Your task to perform on an android device: Search for "alienware area 51" on amazon, select the first entry, and add it to the cart. Image 0: 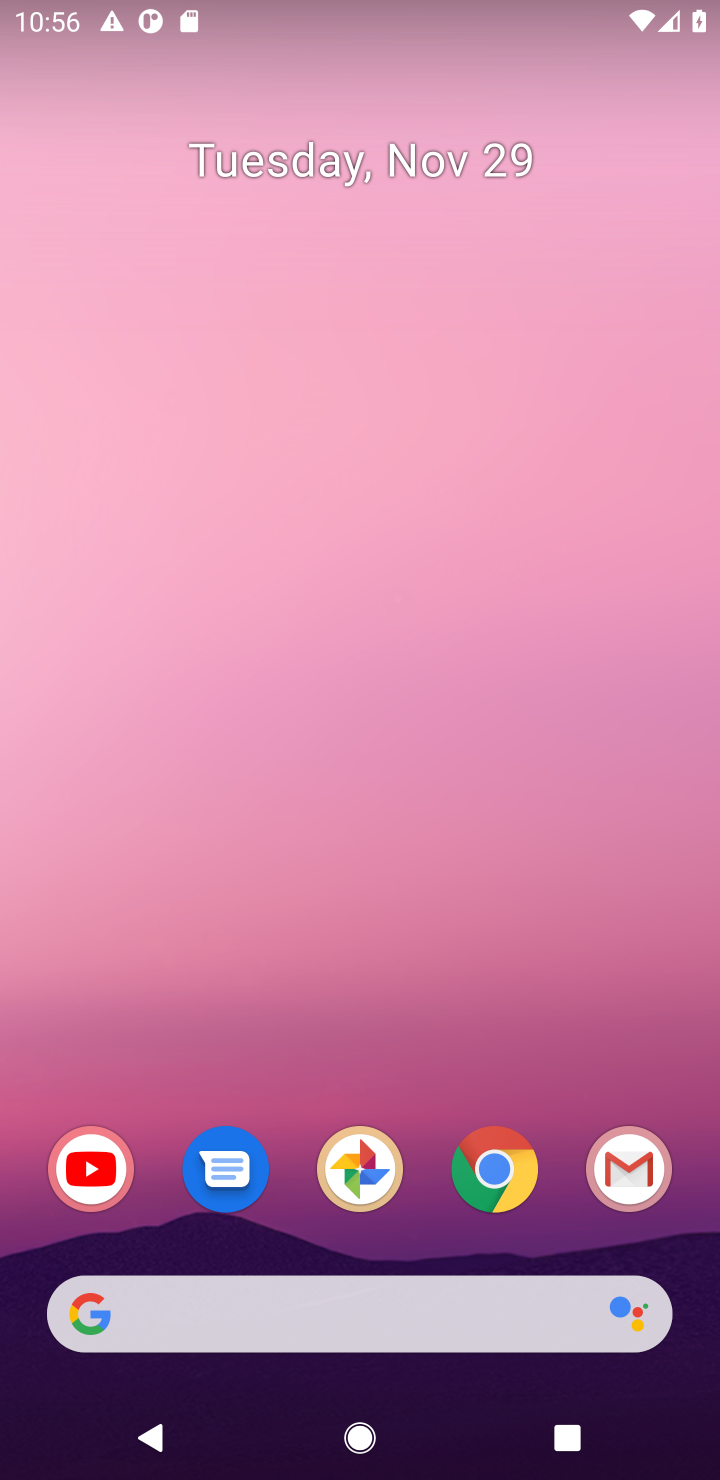
Step 0: click (340, 1338)
Your task to perform on an android device: Search for "alienware area 51" on amazon, select the first entry, and add it to the cart. Image 1: 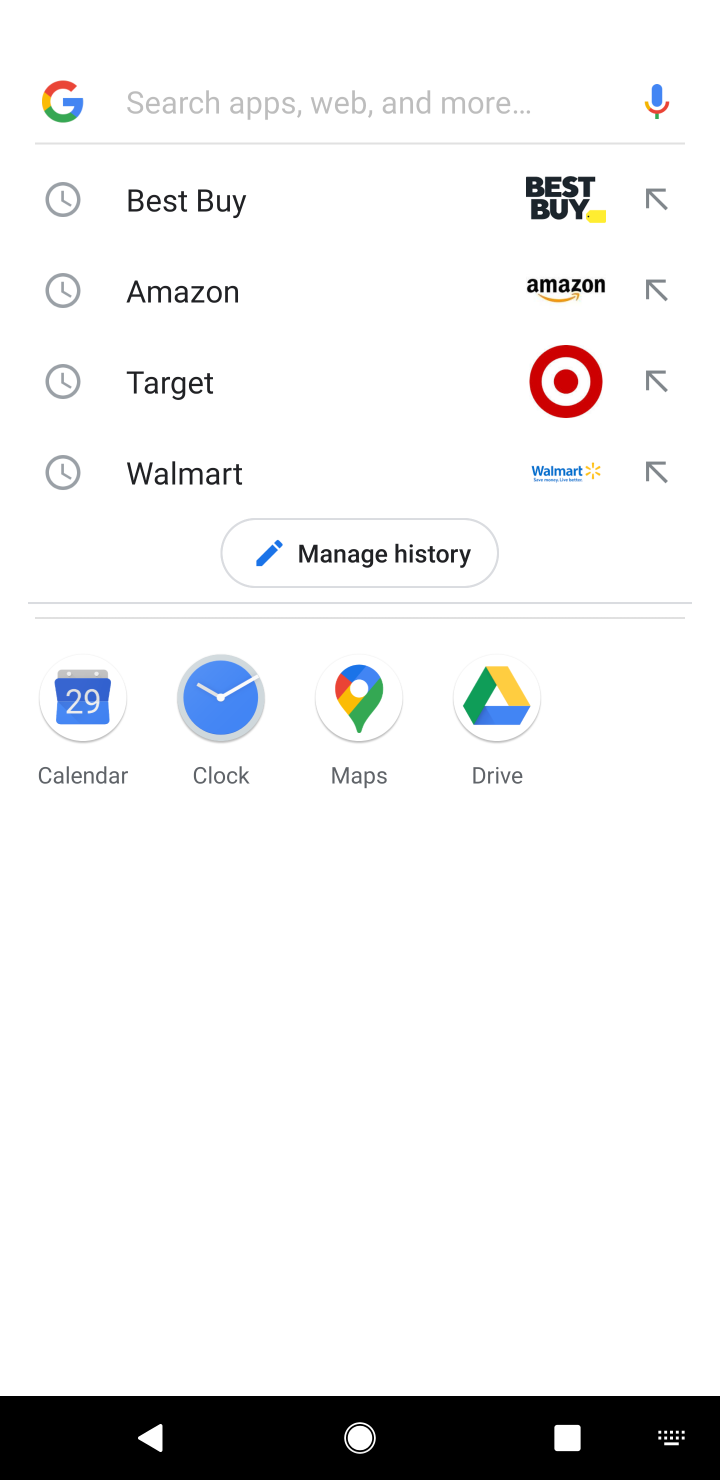
Step 1: click (221, 298)
Your task to perform on an android device: Search for "alienware area 51" on amazon, select the first entry, and add it to the cart. Image 2: 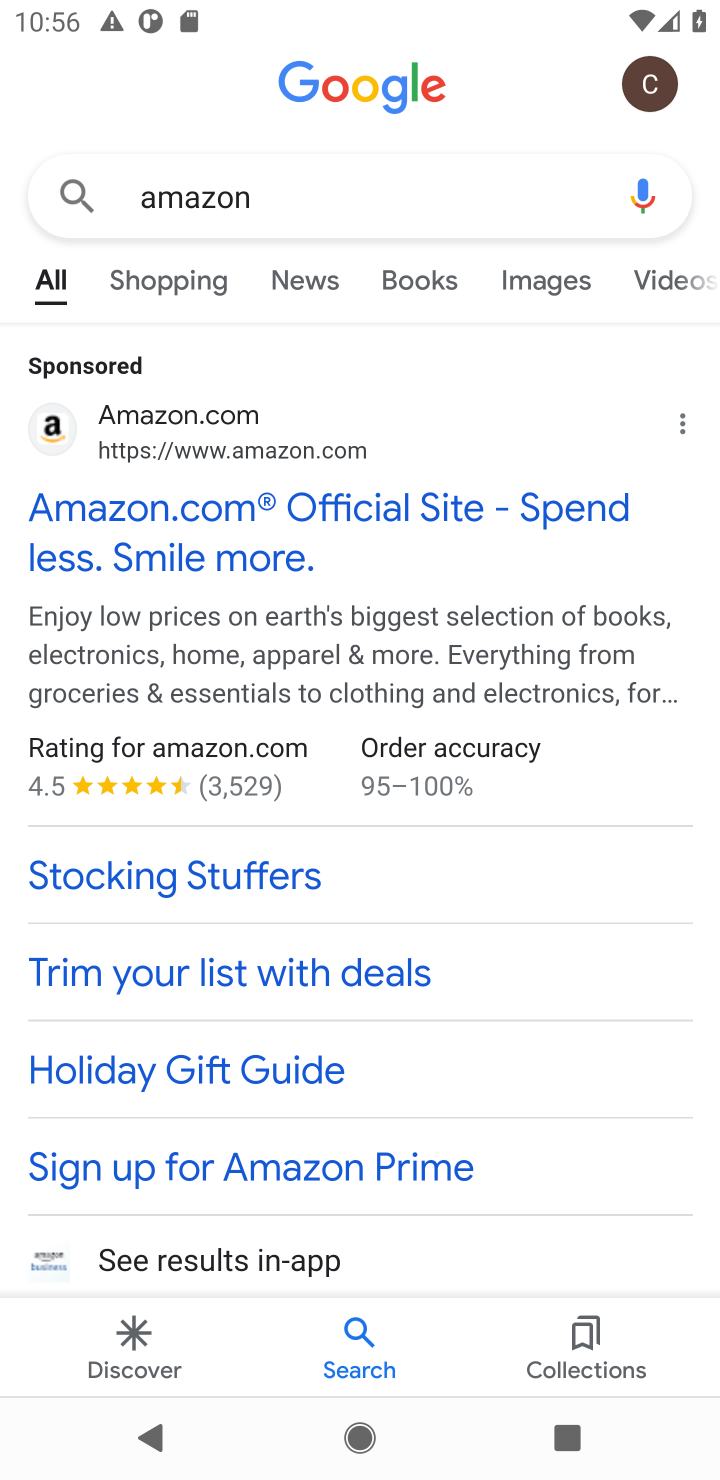
Step 2: click (105, 579)
Your task to perform on an android device: Search for "alienware area 51" on amazon, select the first entry, and add it to the cart. Image 3: 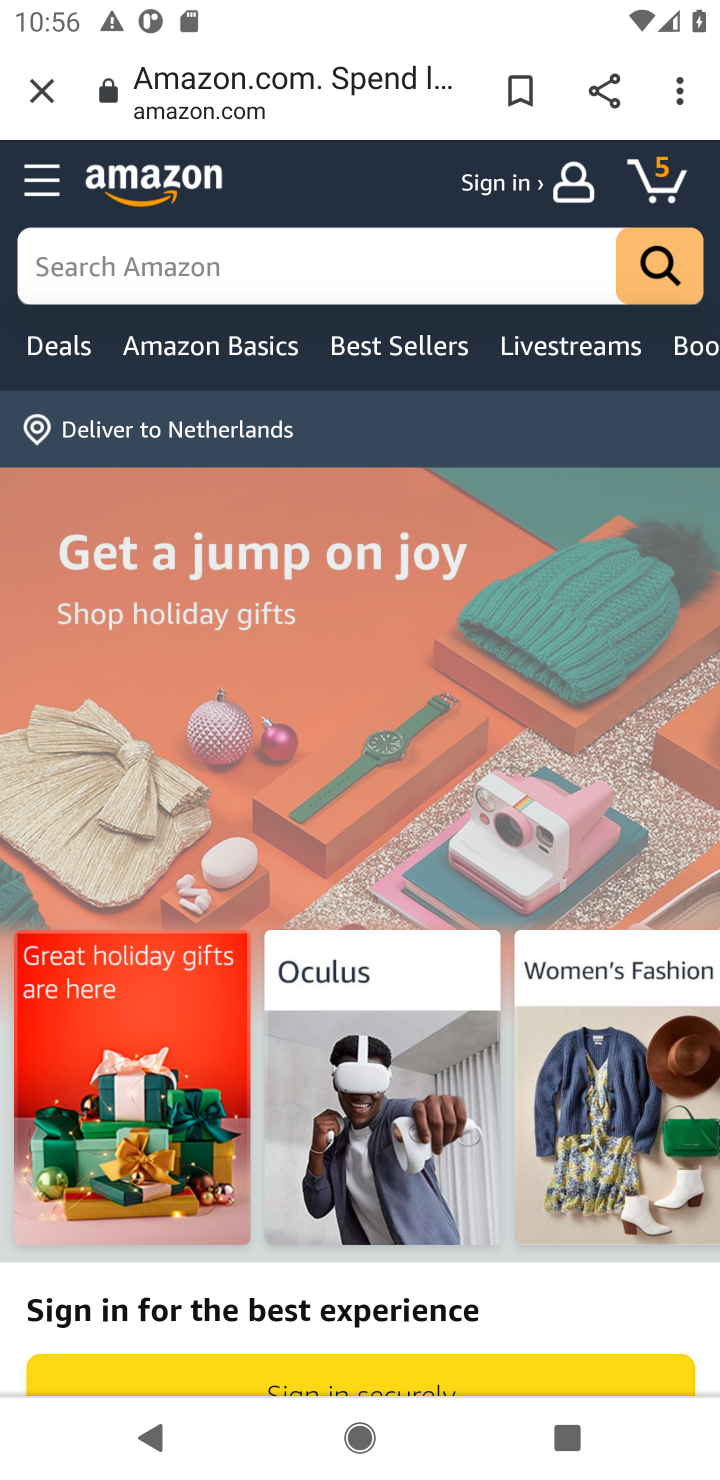
Step 3: click (223, 276)
Your task to perform on an android device: Search for "alienware area 51" on amazon, select the first entry, and add it to the cart. Image 4: 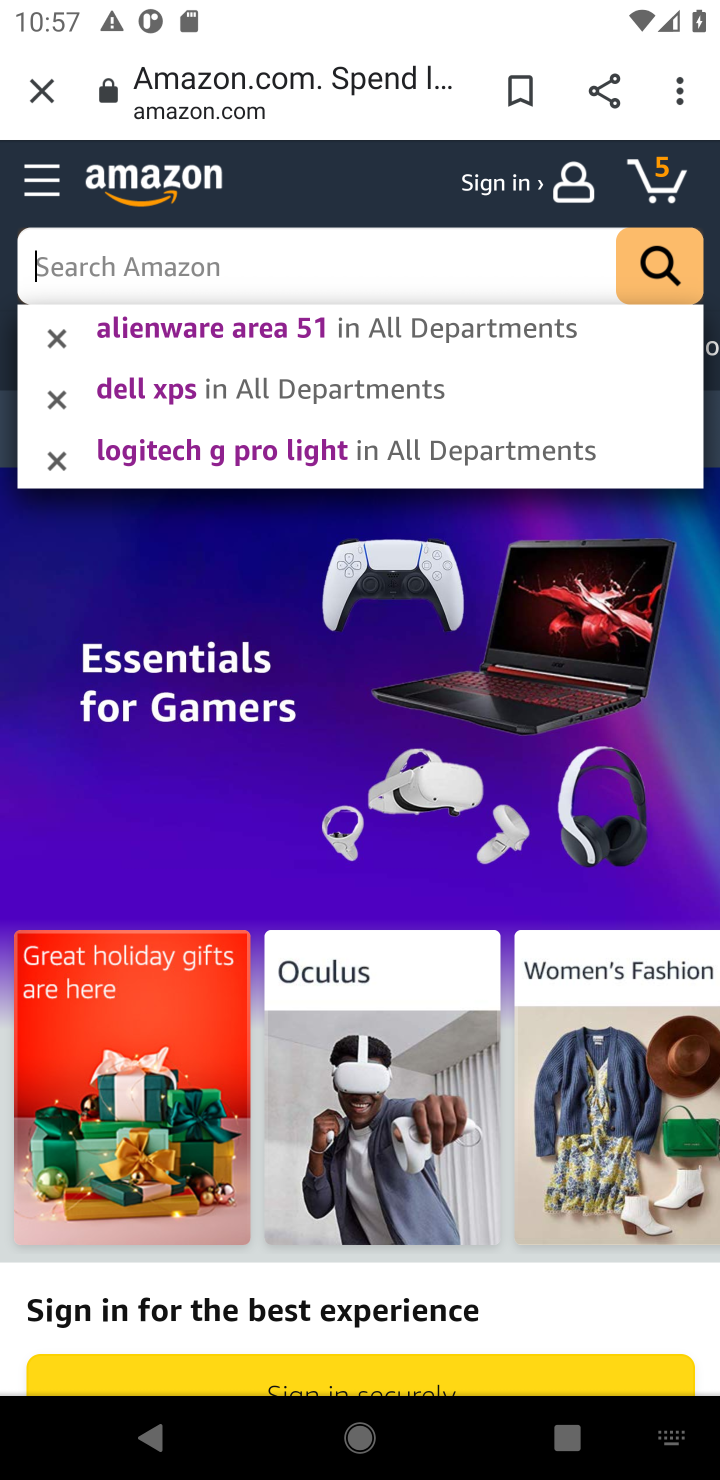
Step 4: type "alienware area 51"
Your task to perform on an android device: Search for "alienware area 51" on amazon, select the first entry, and add it to the cart. Image 5: 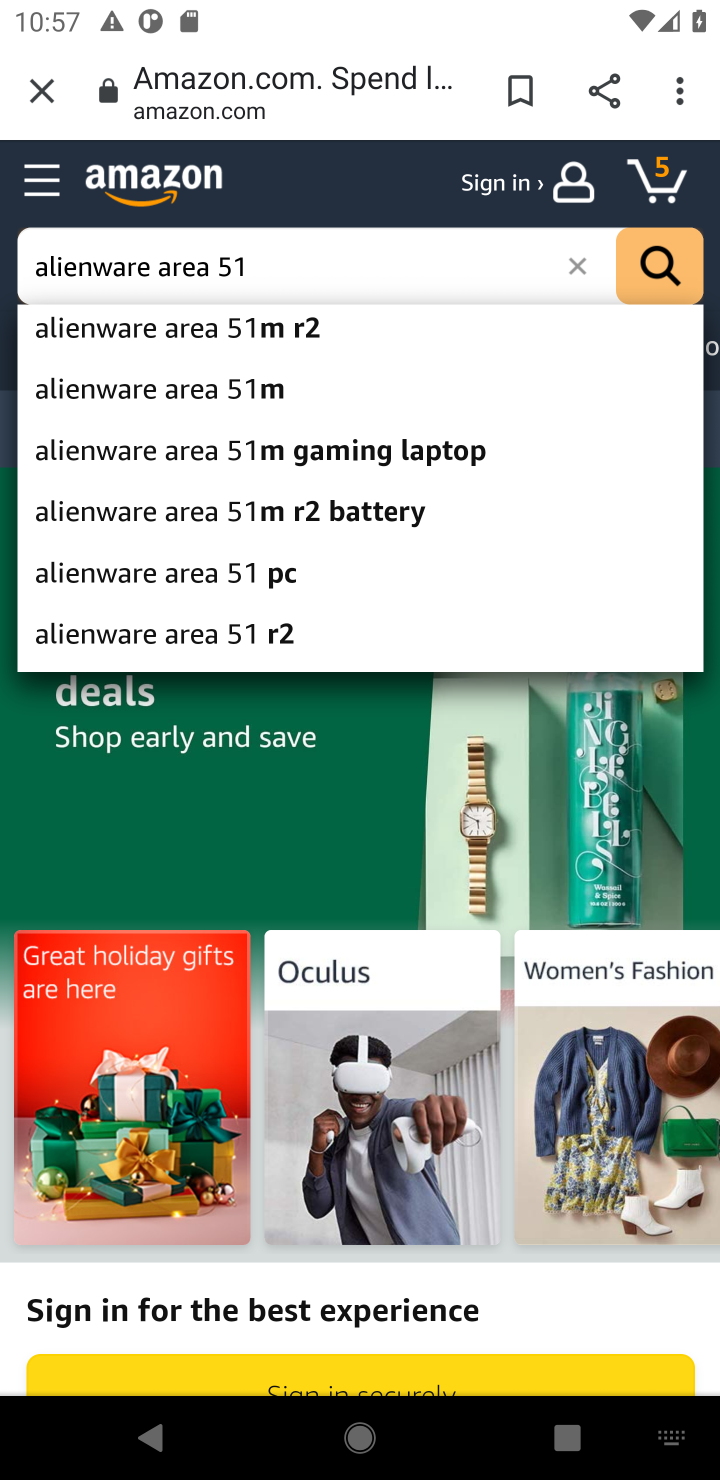
Step 5: click (655, 265)
Your task to perform on an android device: Search for "alienware area 51" on amazon, select the first entry, and add it to the cart. Image 6: 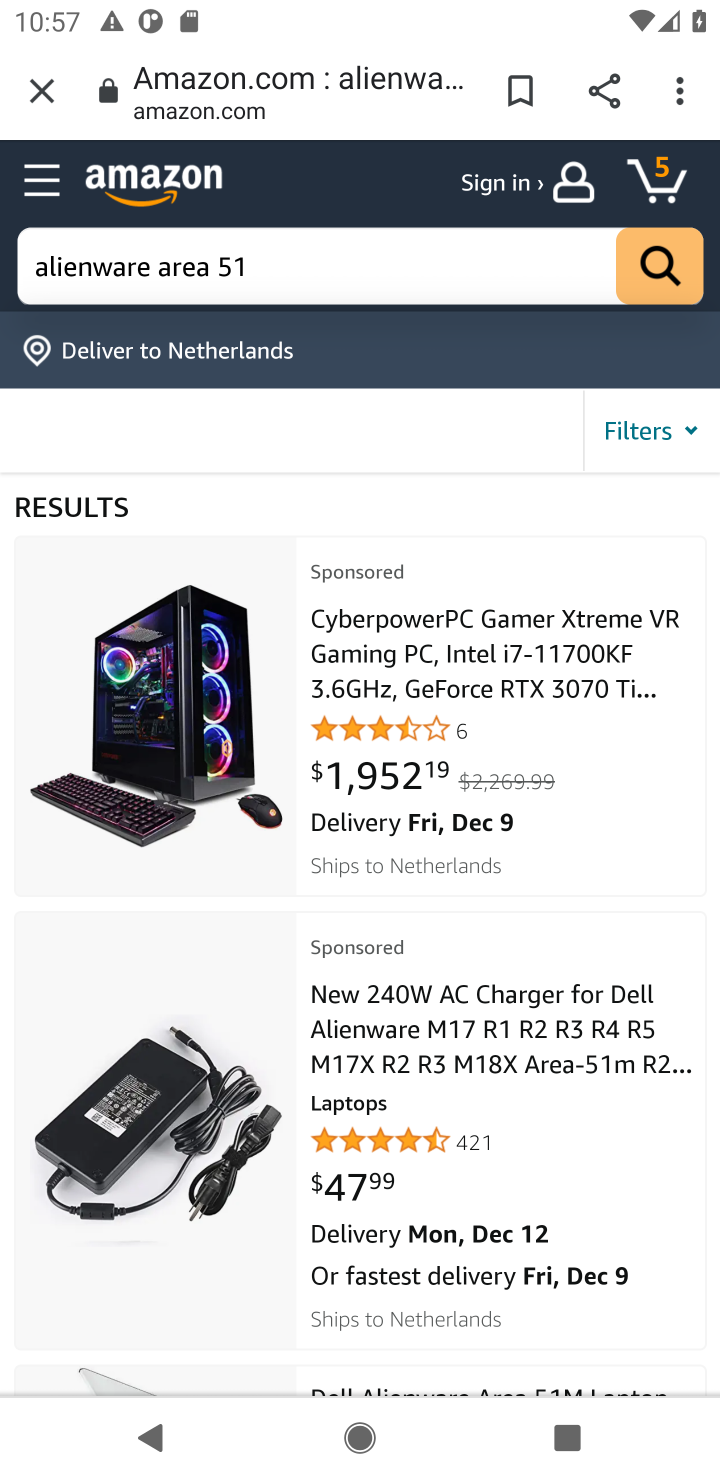
Step 6: click (443, 704)
Your task to perform on an android device: Search for "alienware area 51" on amazon, select the first entry, and add it to the cart. Image 7: 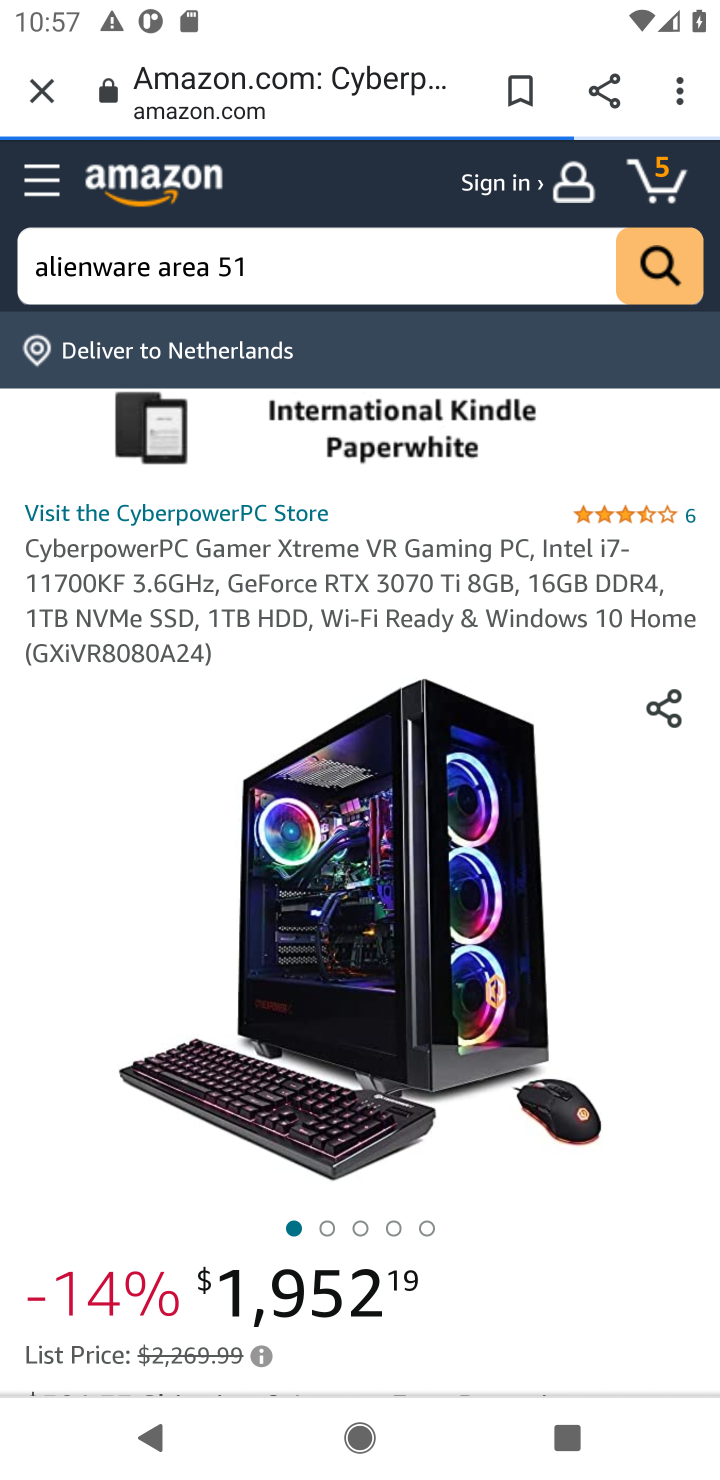
Step 7: drag from (578, 1233) to (534, 538)
Your task to perform on an android device: Search for "alienware area 51" on amazon, select the first entry, and add it to the cart. Image 8: 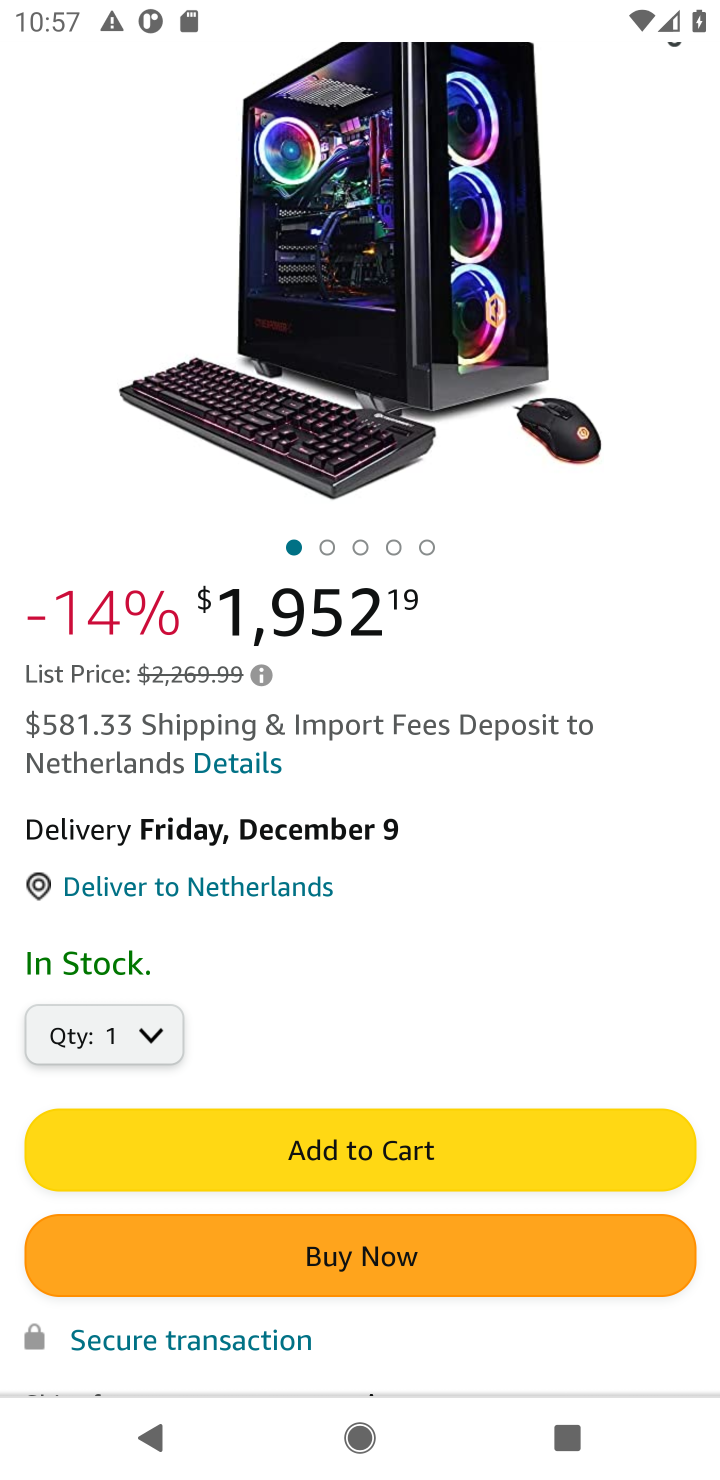
Step 8: click (510, 1156)
Your task to perform on an android device: Search for "alienware area 51" on amazon, select the first entry, and add it to the cart. Image 9: 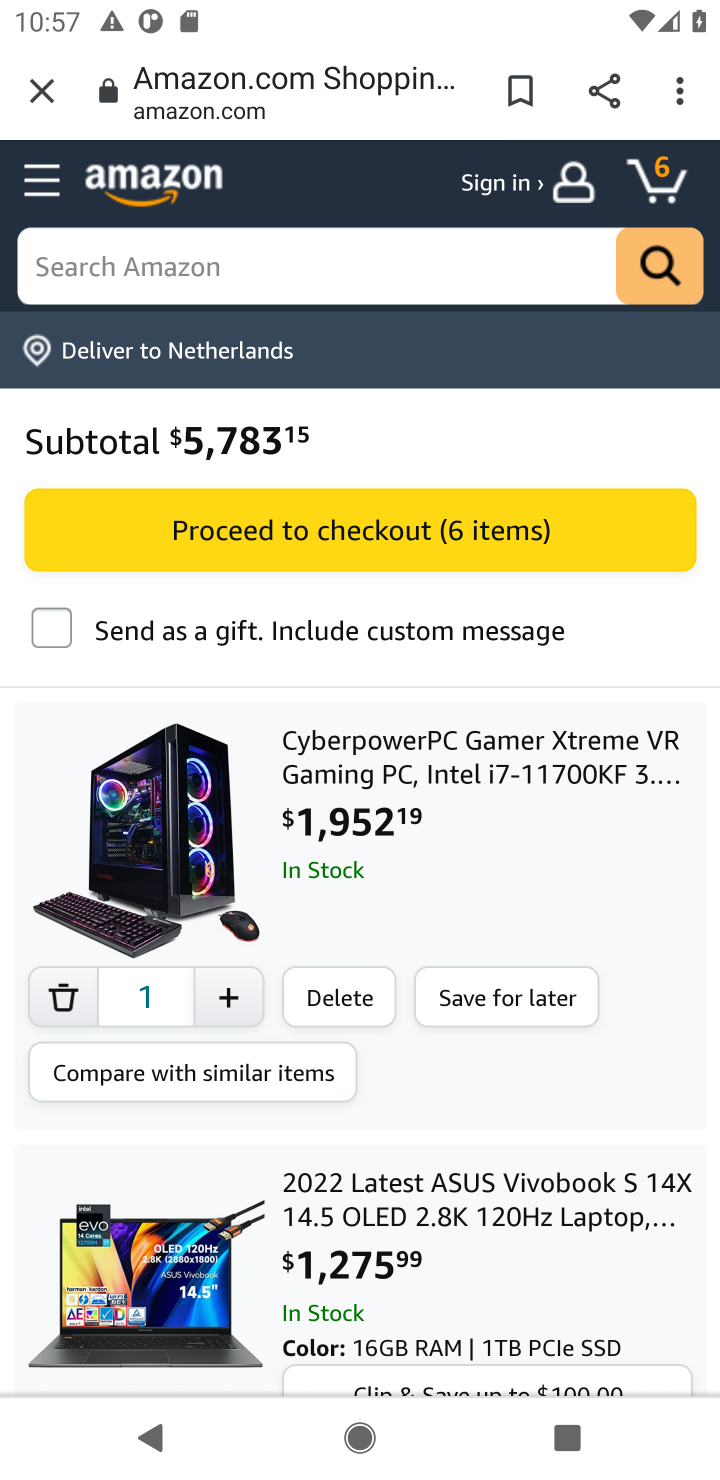
Step 9: task complete